Your task to perform on an android device: read, delete, or share a saved page in the chrome app Image 0: 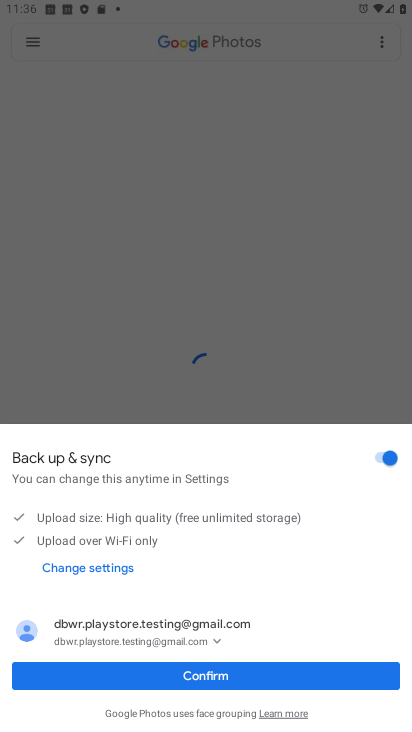
Step 0: press home button
Your task to perform on an android device: read, delete, or share a saved page in the chrome app Image 1: 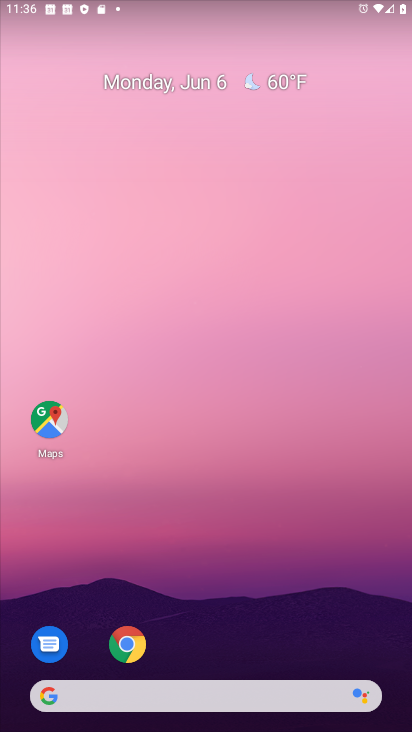
Step 1: click (138, 650)
Your task to perform on an android device: read, delete, or share a saved page in the chrome app Image 2: 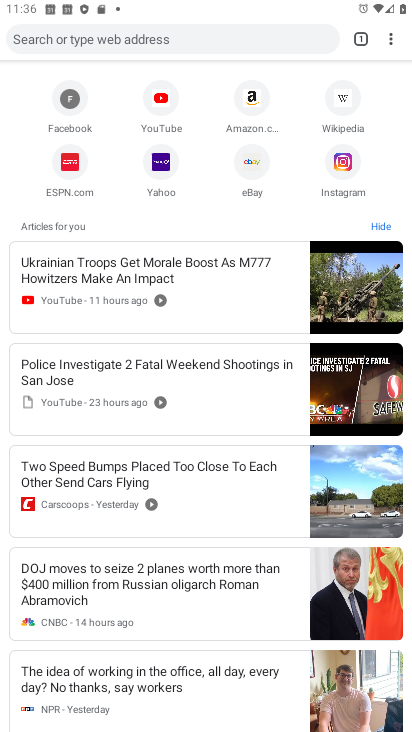
Step 2: click (392, 44)
Your task to perform on an android device: read, delete, or share a saved page in the chrome app Image 3: 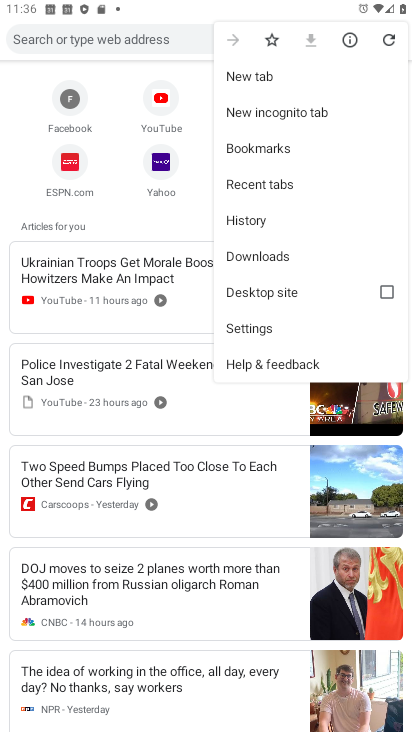
Step 3: click (267, 150)
Your task to perform on an android device: read, delete, or share a saved page in the chrome app Image 4: 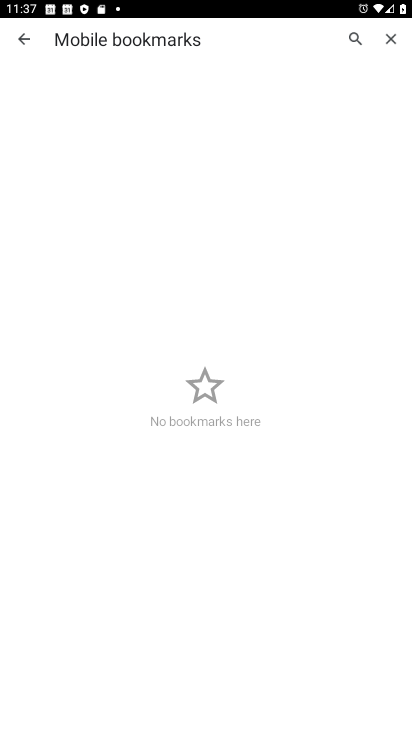
Step 4: task complete